Your task to perform on an android device: Go to Amazon Image 0: 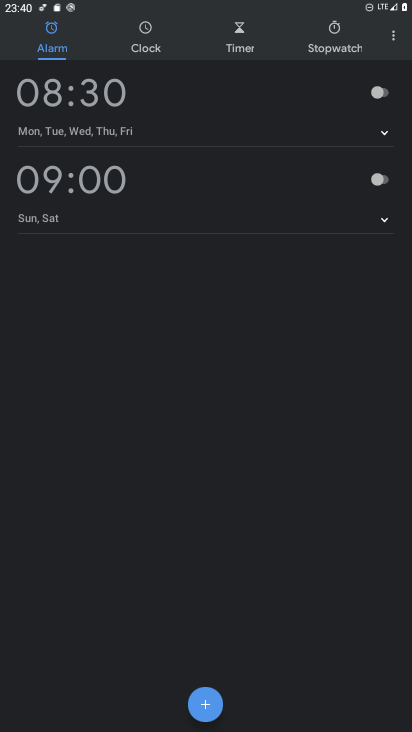
Step 0: press home button
Your task to perform on an android device: Go to Amazon Image 1: 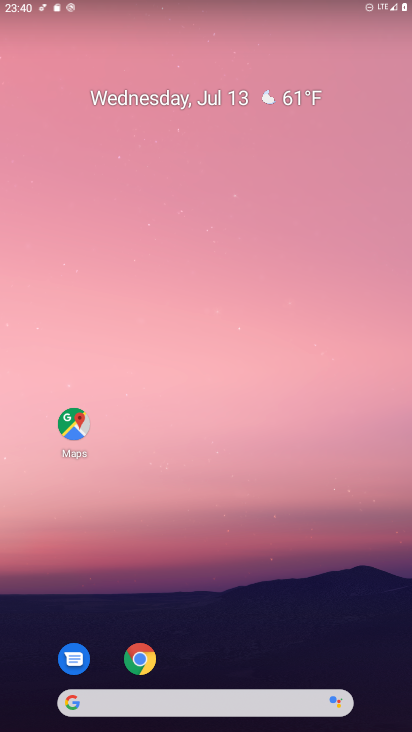
Step 1: click (137, 659)
Your task to perform on an android device: Go to Amazon Image 2: 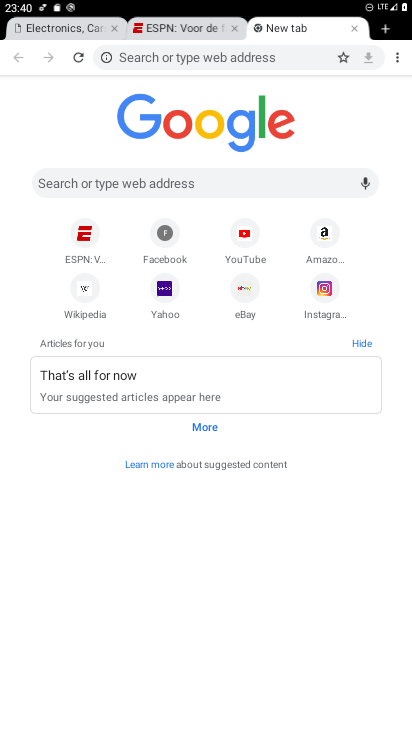
Step 2: click (118, 171)
Your task to perform on an android device: Go to Amazon Image 3: 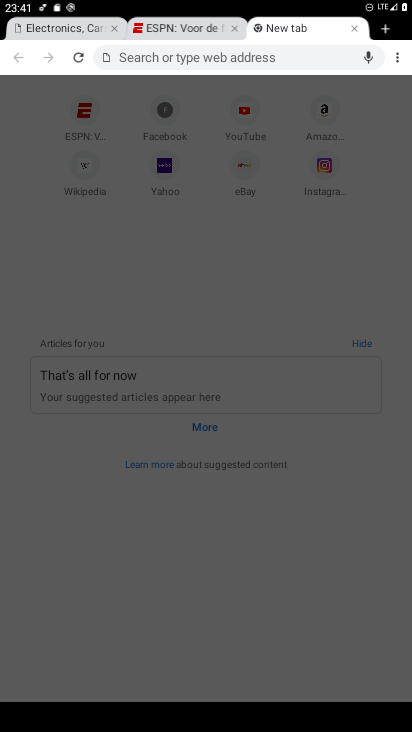
Step 3: type "amazon"
Your task to perform on an android device: Go to Amazon Image 4: 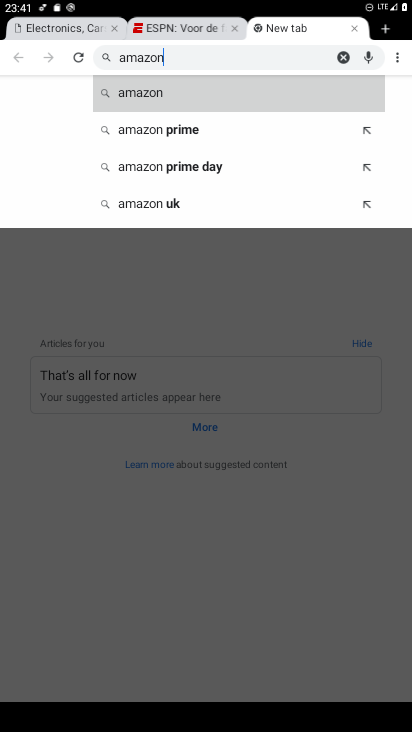
Step 4: click (138, 90)
Your task to perform on an android device: Go to Amazon Image 5: 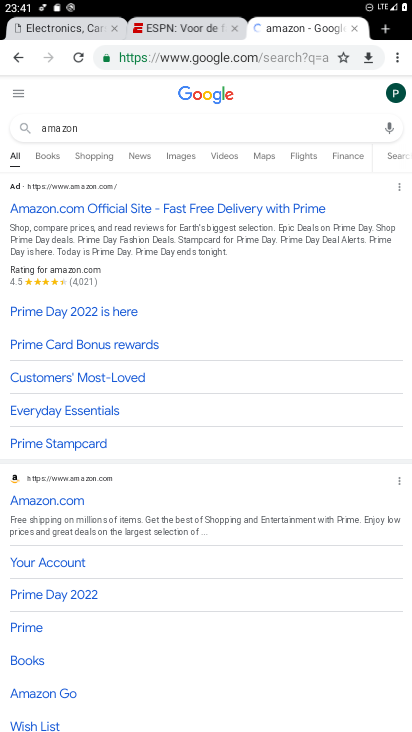
Step 5: click (37, 491)
Your task to perform on an android device: Go to Amazon Image 6: 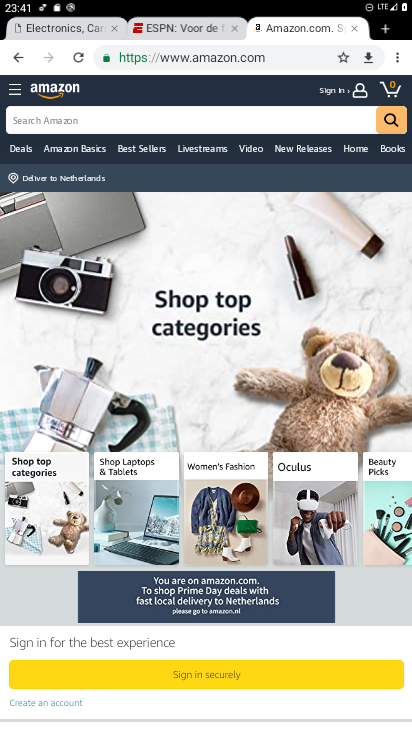
Step 6: task complete